Your task to perform on an android device: turn on javascript in the chrome app Image 0: 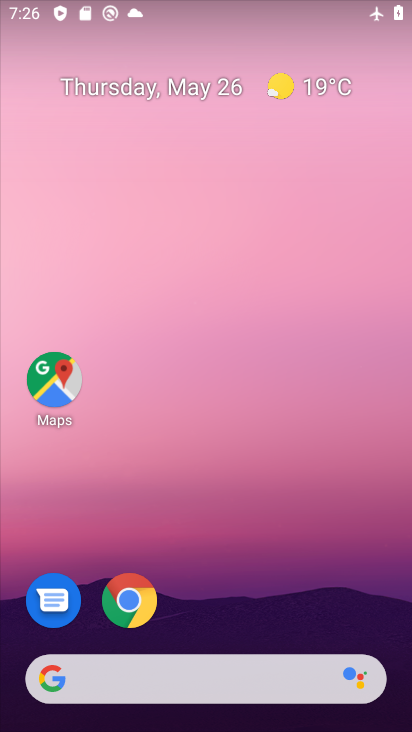
Step 0: press home button
Your task to perform on an android device: turn on javascript in the chrome app Image 1: 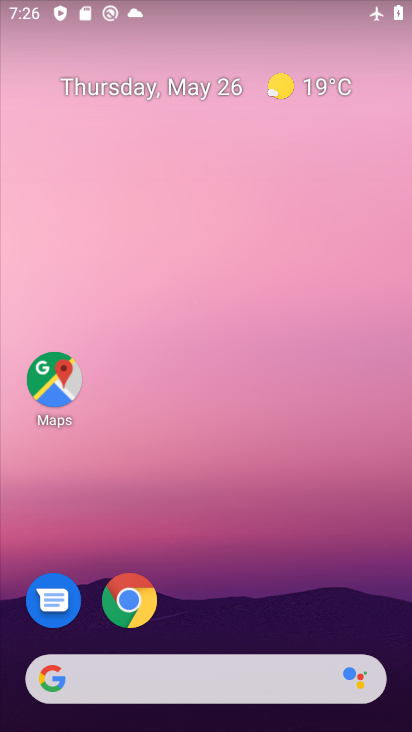
Step 1: click (133, 598)
Your task to perform on an android device: turn on javascript in the chrome app Image 2: 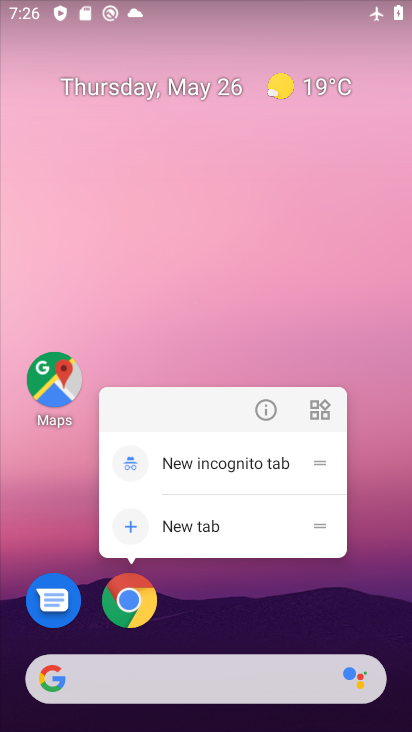
Step 2: click (139, 609)
Your task to perform on an android device: turn on javascript in the chrome app Image 3: 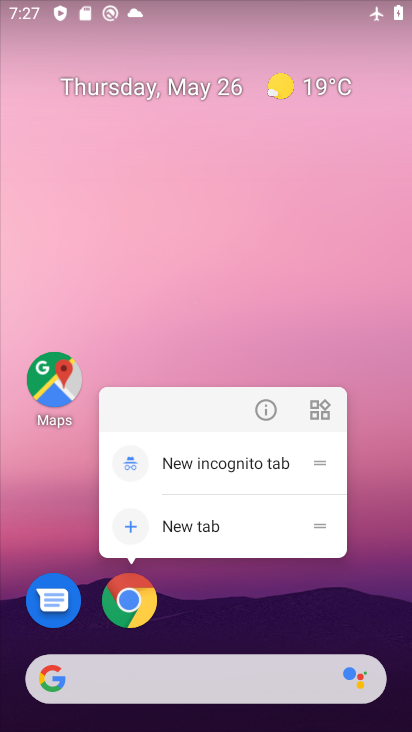
Step 3: click (132, 605)
Your task to perform on an android device: turn on javascript in the chrome app Image 4: 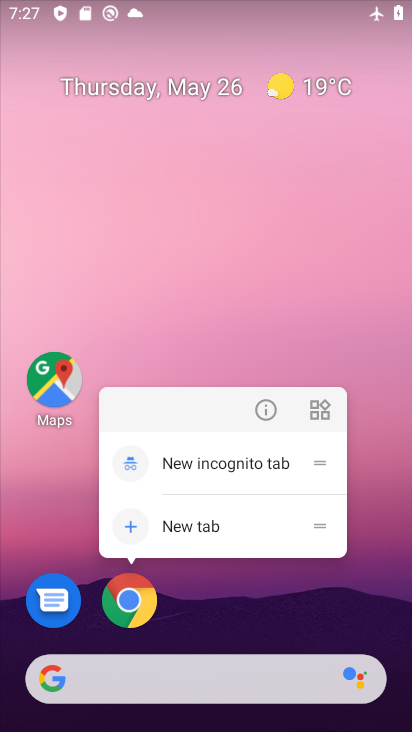
Step 4: click (143, 587)
Your task to perform on an android device: turn on javascript in the chrome app Image 5: 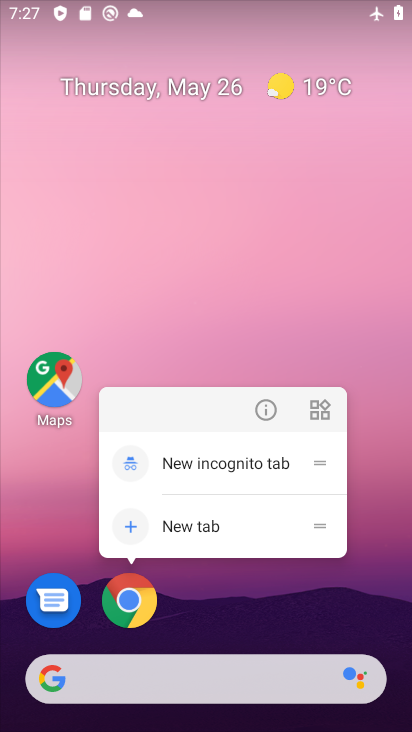
Step 5: click (115, 598)
Your task to perform on an android device: turn on javascript in the chrome app Image 6: 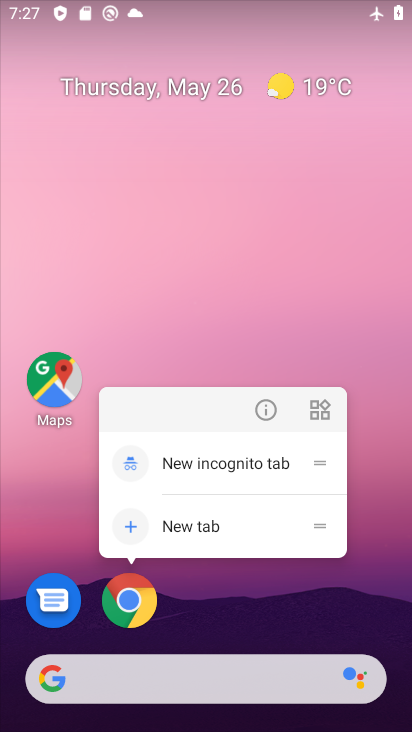
Step 6: click (244, 606)
Your task to perform on an android device: turn on javascript in the chrome app Image 7: 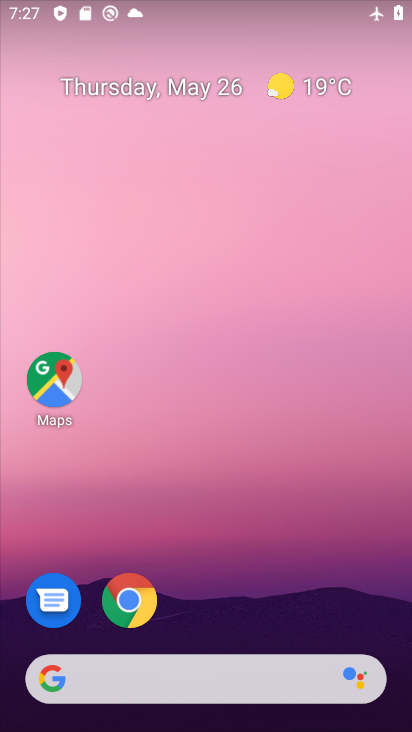
Step 7: click (132, 606)
Your task to perform on an android device: turn on javascript in the chrome app Image 8: 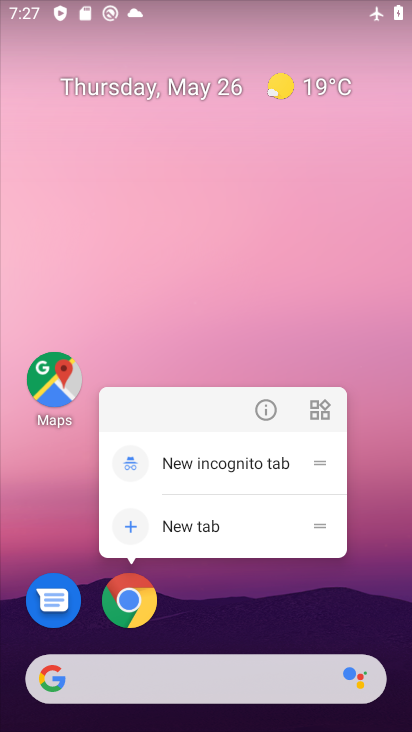
Step 8: click (167, 587)
Your task to perform on an android device: turn on javascript in the chrome app Image 9: 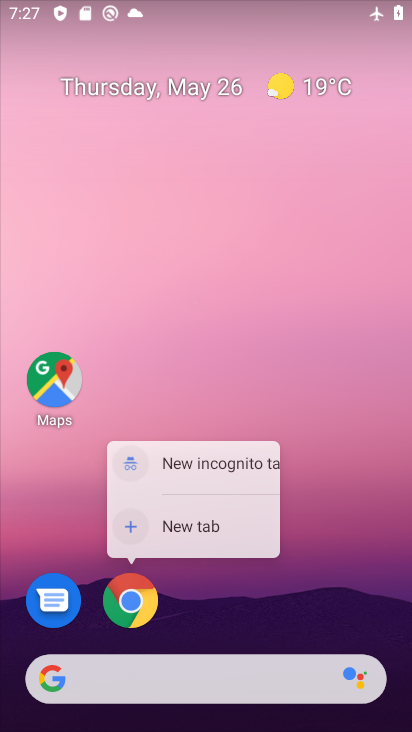
Step 9: click (117, 600)
Your task to perform on an android device: turn on javascript in the chrome app Image 10: 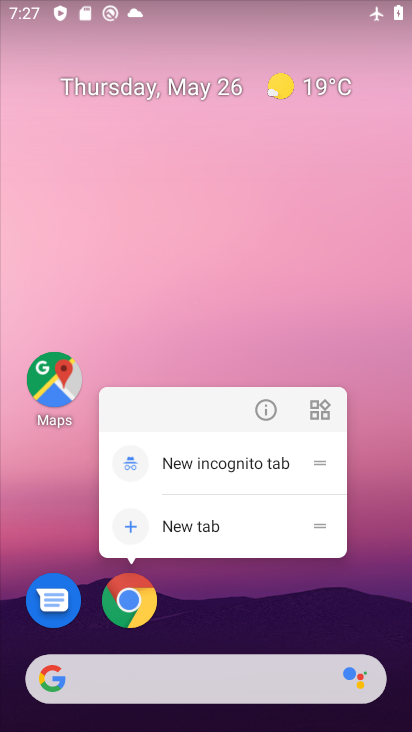
Step 10: click (145, 615)
Your task to perform on an android device: turn on javascript in the chrome app Image 11: 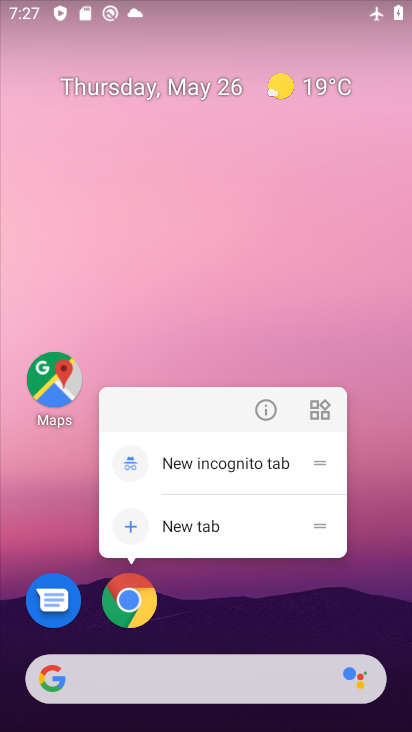
Step 11: click (136, 603)
Your task to perform on an android device: turn on javascript in the chrome app Image 12: 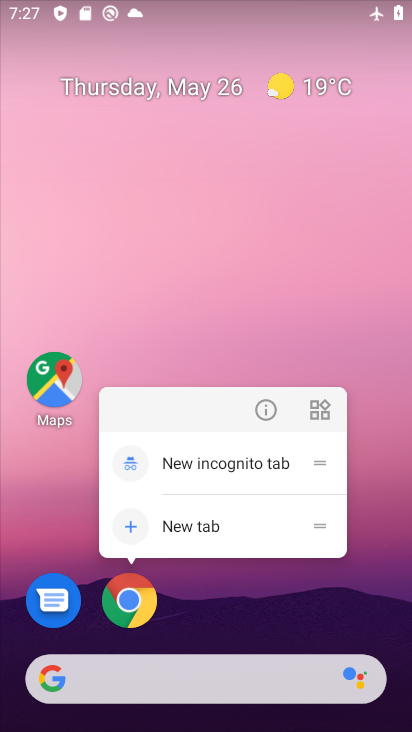
Step 12: click (242, 239)
Your task to perform on an android device: turn on javascript in the chrome app Image 13: 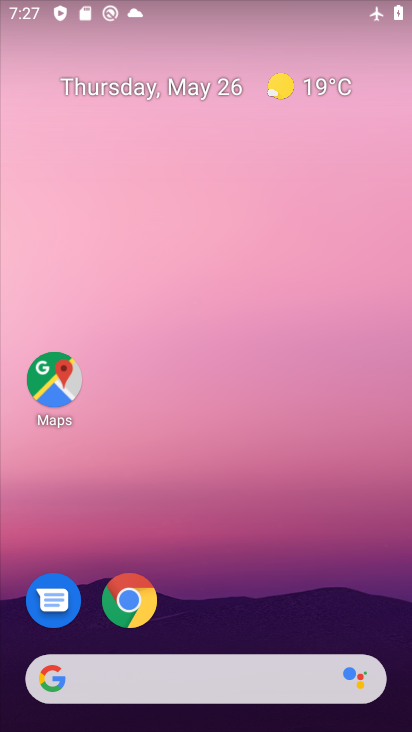
Step 13: click (129, 604)
Your task to perform on an android device: turn on javascript in the chrome app Image 14: 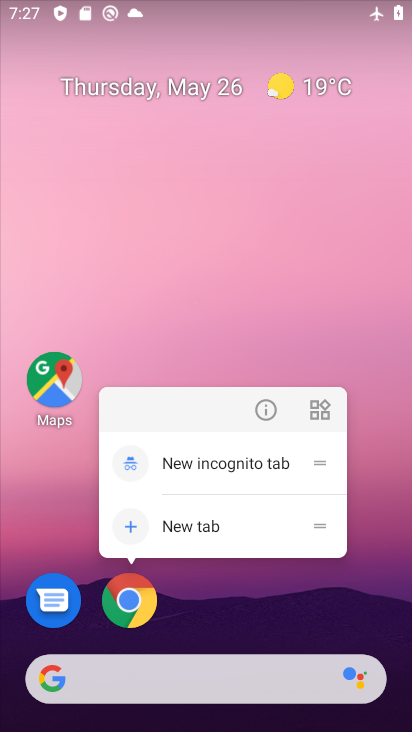
Step 14: drag from (342, 614) to (355, 80)
Your task to perform on an android device: turn on javascript in the chrome app Image 15: 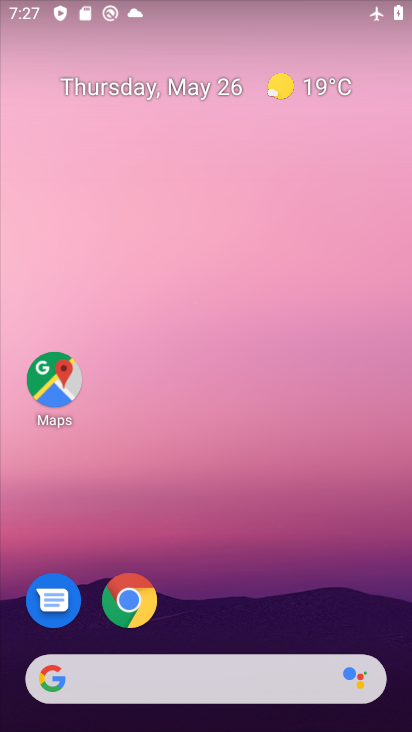
Step 15: drag from (304, 628) to (280, 231)
Your task to perform on an android device: turn on javascript in the chrome app Image 16: 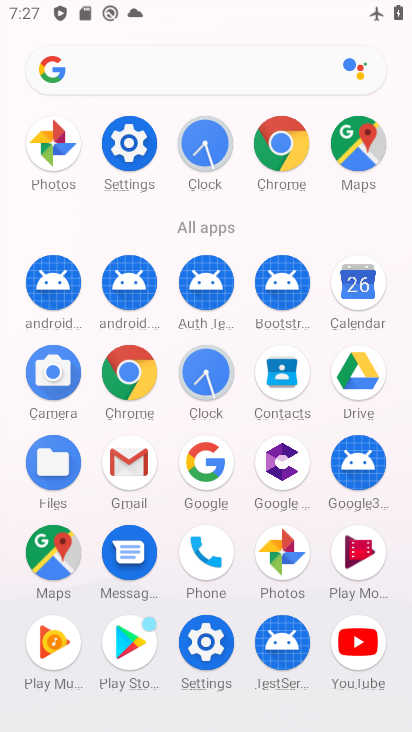
Step 16: click (285, 150)
Your task to perform on an android device: turn on javascript in the chrome app Image 17: 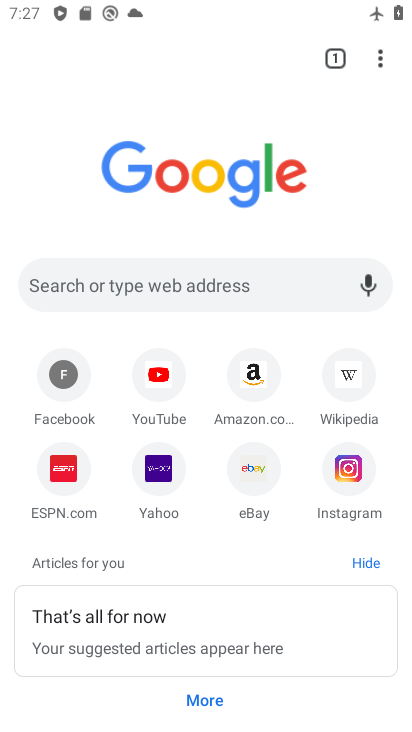
Step 17: drag from (388, 57) to (195, 494)
Your task to perform on an android device: turn on javascript in the chrome app Image 18: 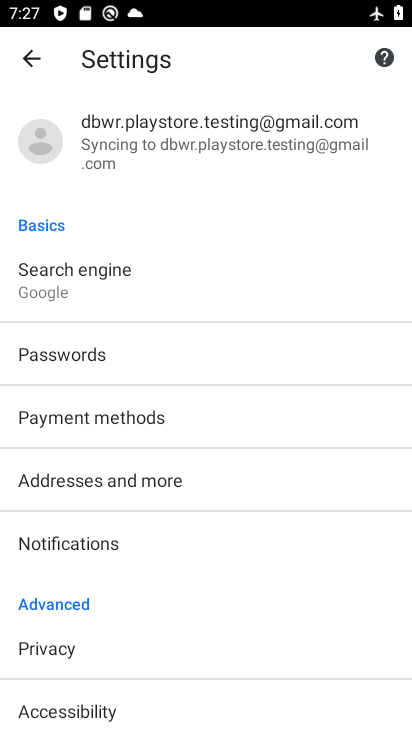
Step 18: drag from (260, 587) to (252, 261)
Your task to perform on an android device: turn on javascript in the chrome app Image 19: 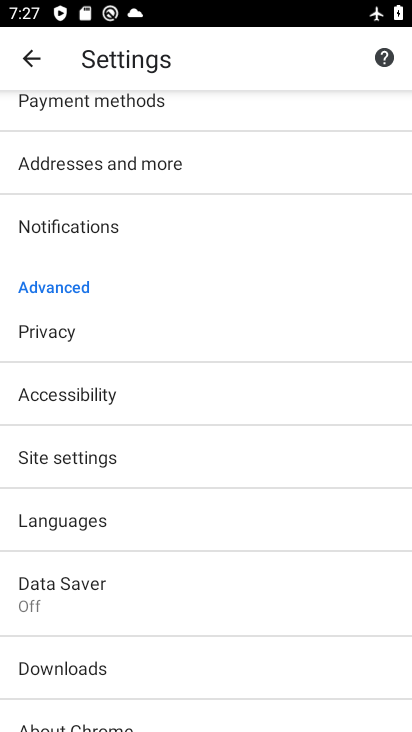
Step 19: click (72, 460)
Your task to perform on an android device: turn on javascript in the chrome app Image 20: 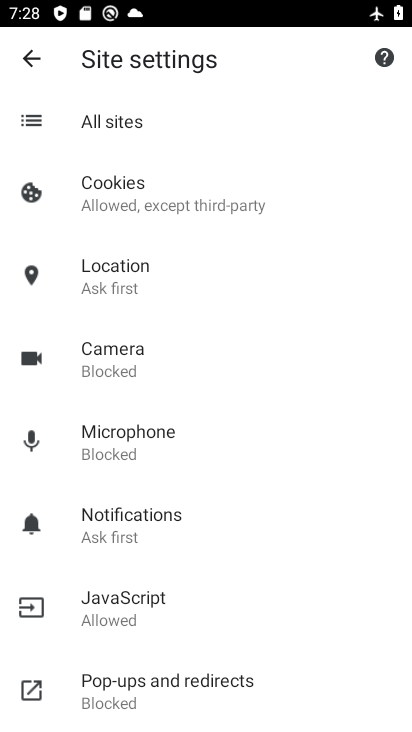
Step 20: click (120, 613)
Your task to perform on an android device: turn on javascript in the chrome app Image 21: 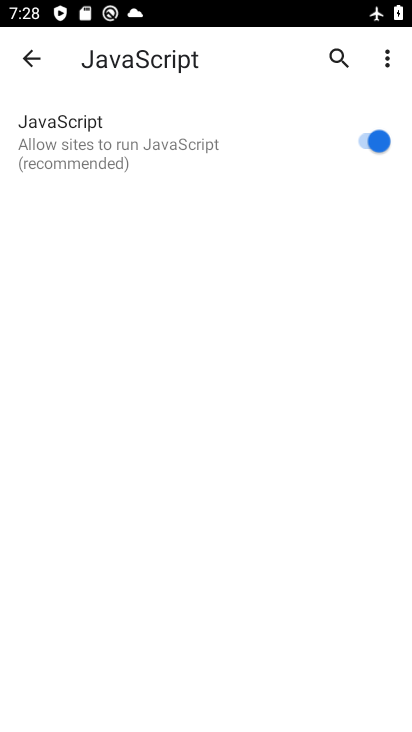
Step 21: task complete